Your task to perform on an android device: Open sound settings Image 0: 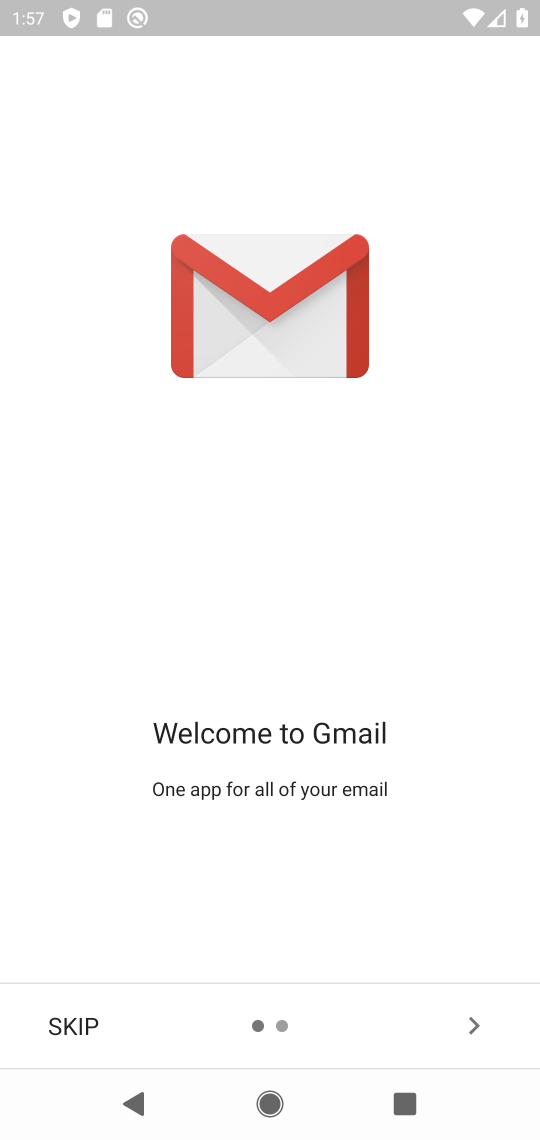
Step 0: press home button
Your task to perform on an android device: Open sound settings Image 1: 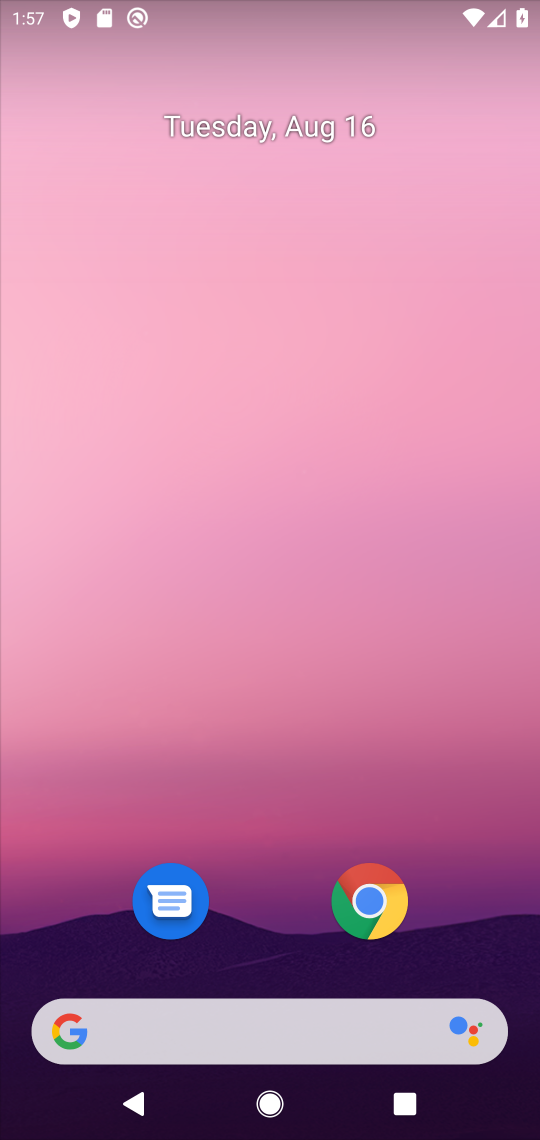
Step 1: drag from (281, 903) to (531, 245)
Your task to perform on an android device: Open sound settings Image 2: 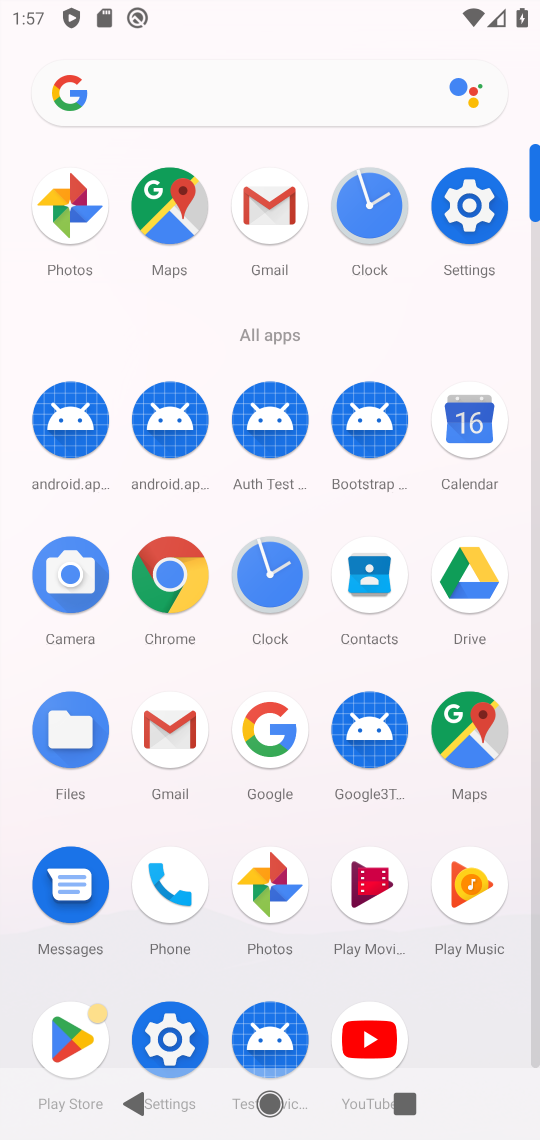
Step 2: click (466, 212)
Your task to perform on an android device: Open sound settings Image 3: 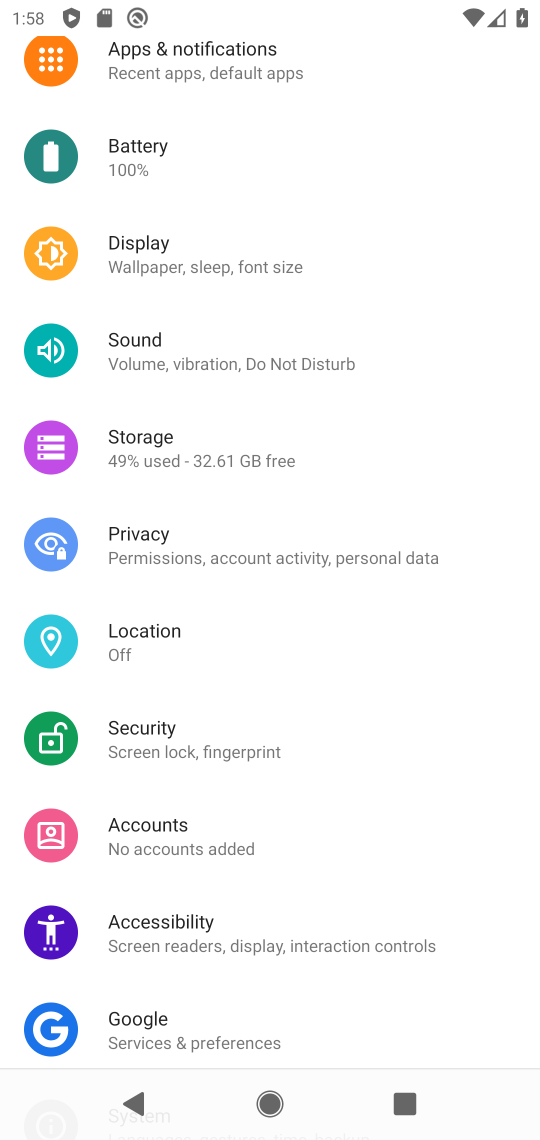
Step 3: click (203, 356)
Your task to perform on an android device: Open sound settings Image 4: 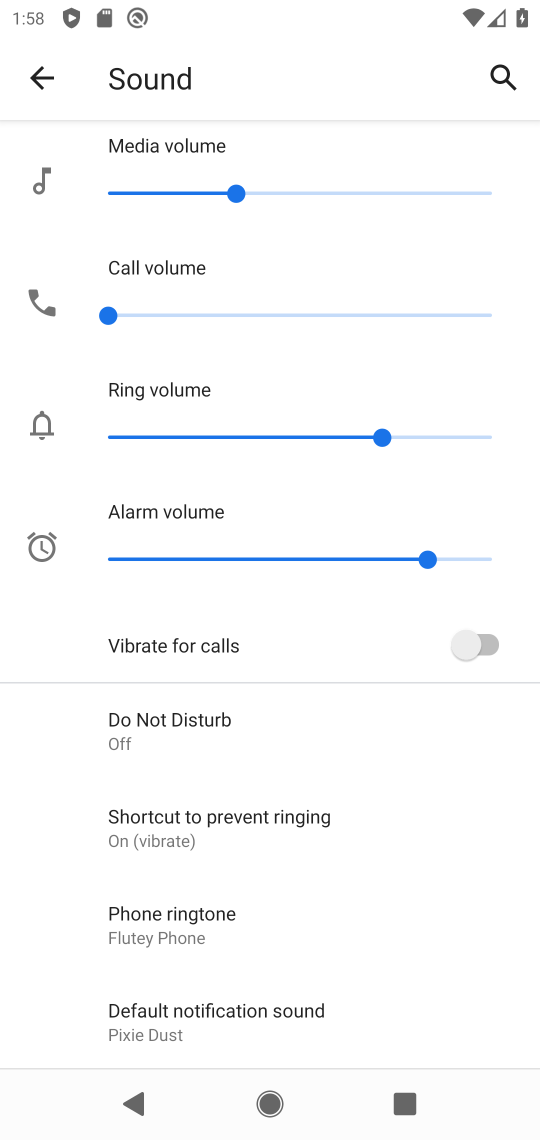
Step 4: task complete